Your task to perform on an android device: Go to privacy settings Image 0: 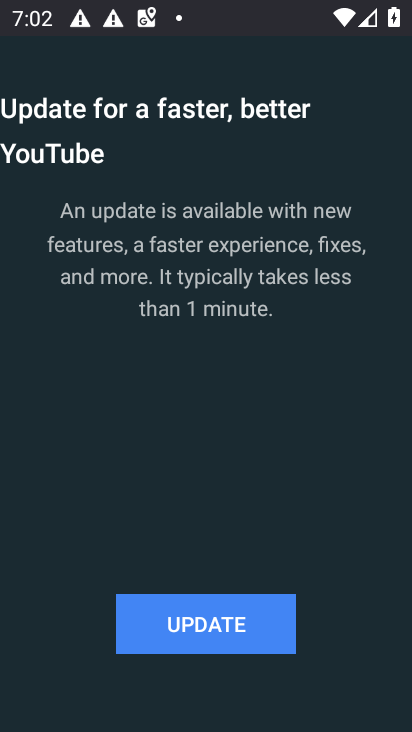
Step 0: click (279, 580)
Your task to perform on an android device: Go to privacy settings Image 1: 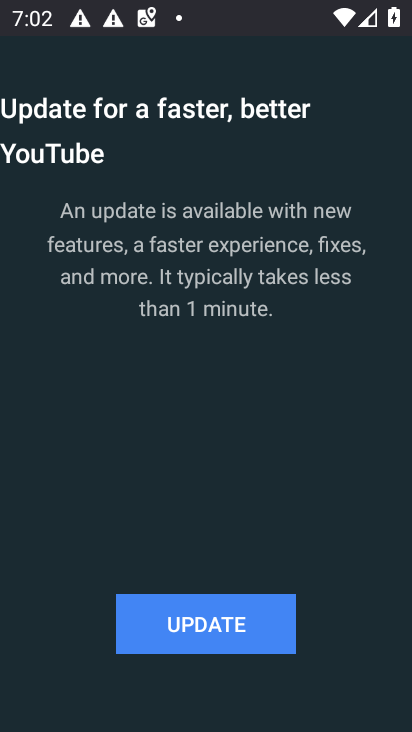
Step 1: press home button
Your task to perform on an android device: Go to privacy settings Image 2: 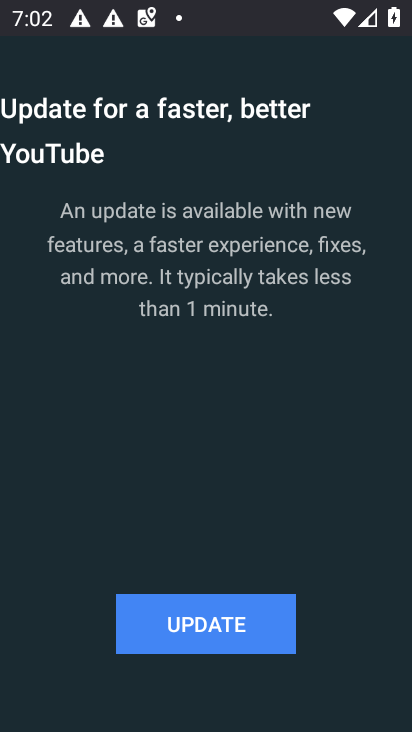
Step 2: drag from (279, 580) to (365, 517)
Your task to perform on an android device: Go to privacy settings Image 3: 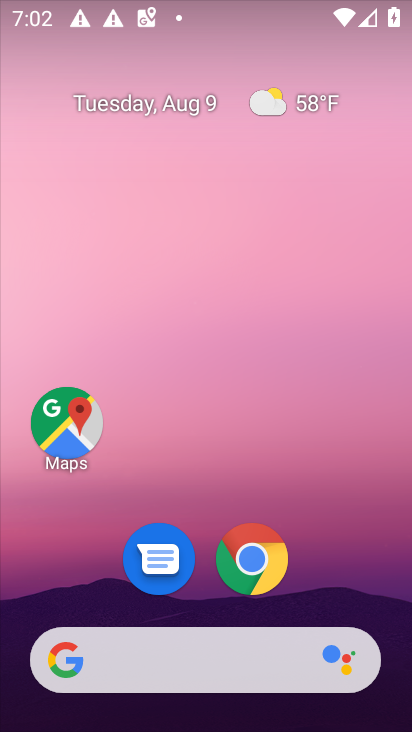
Step 3: drag from (209, 493) to (209, 306)
Your task to perform on an android device: Go to privacy settings Image 4: 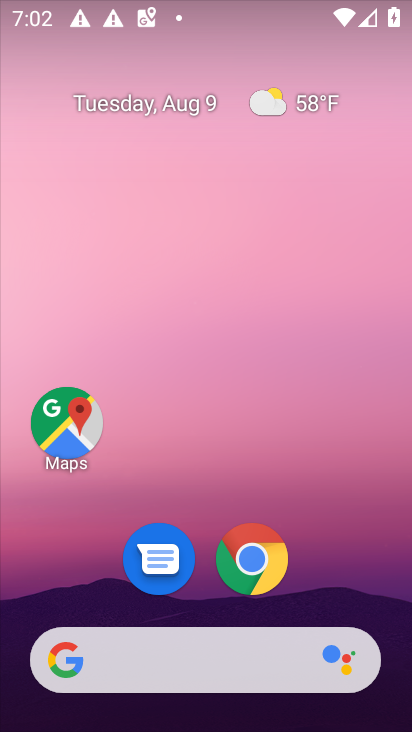
Step 4: drag from (214, 588) to (192, 97)
Your task to perform on an android device: Go to privacy settings Image 5: 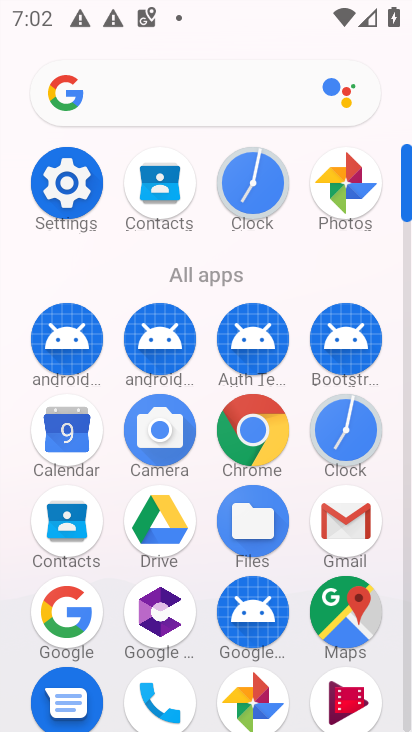
Step 5: click (63, 184)
Your task to perform on an android device: Go to privacy settings Image 6: 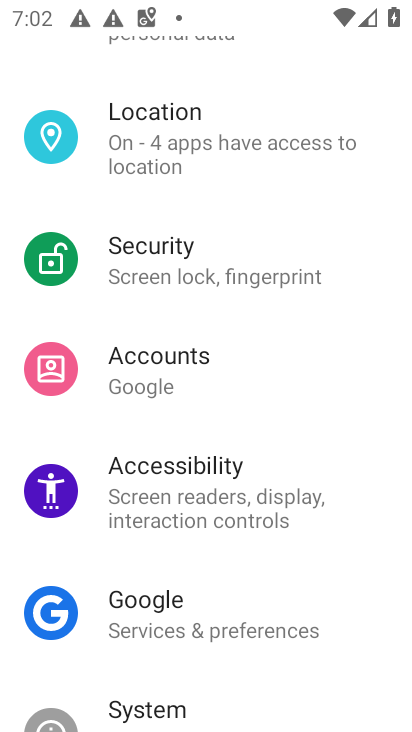
Step 6: drag from (206, 213) to (225, 551)
Your task to perform on an android device: Go to privacy settings Image 7: 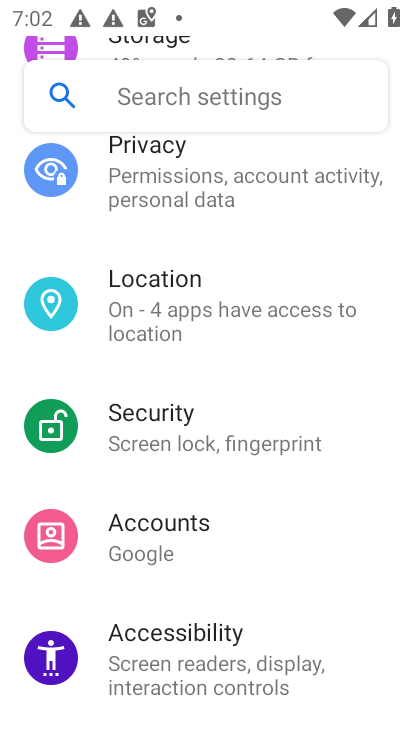
Step 7: click (149, 172)
Your task to perform on an android device: Go to privacy settings Image 8: 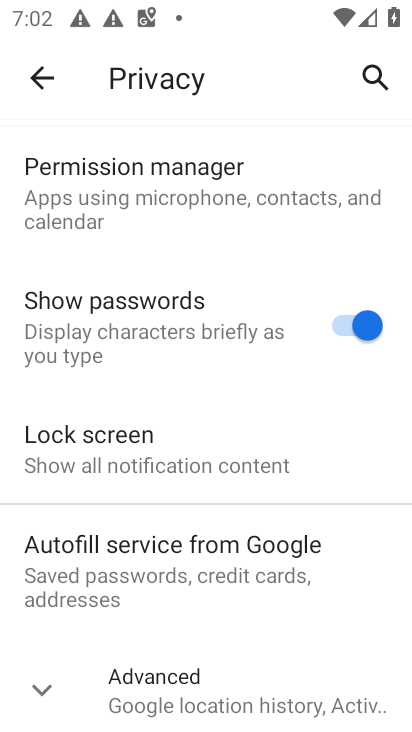
Step 8: task complete